Your task to perform on an android device: Open calendar and show me the third week of next month Image 0: 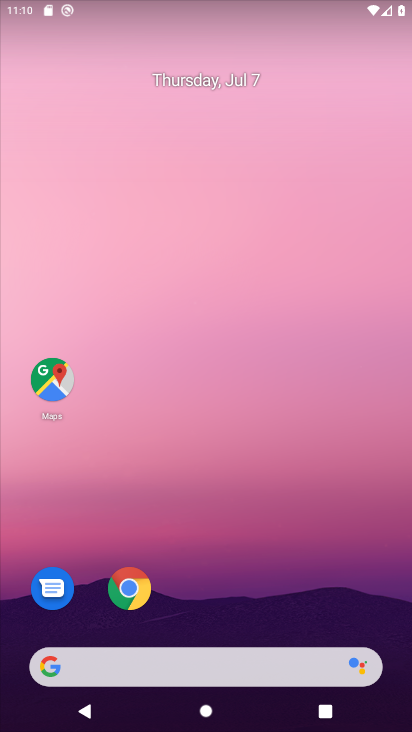
Step 0: press home button
Your task to perform on an android device: Open calendar and show me the third week of next month Image 1: 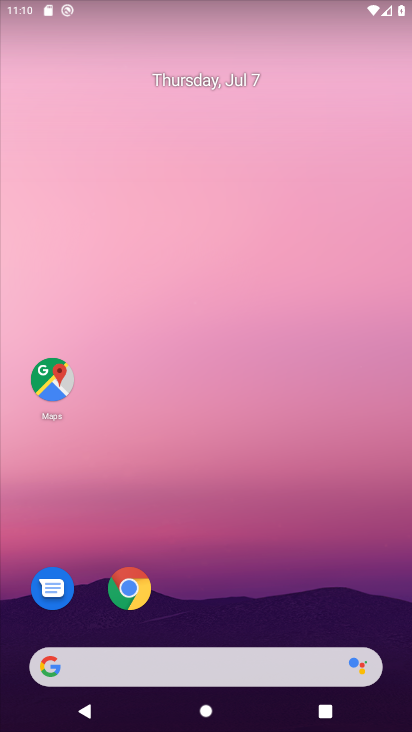
Step 1: drag from (134, 663) to (290, 112)
Your task to perform on an android device: Open calendar and show me the third week of next month Image 2: 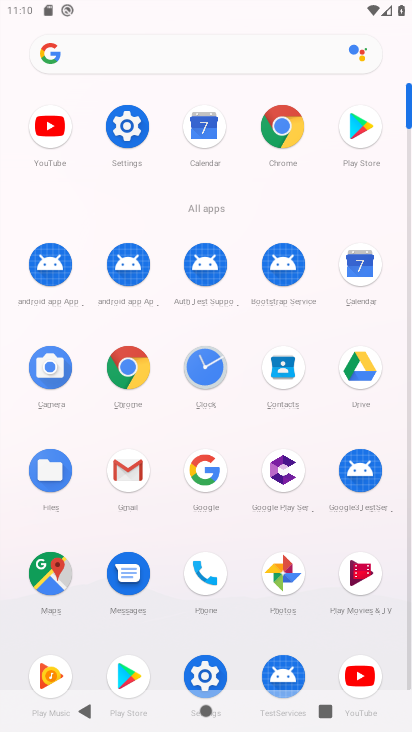
Step 2: click (359, 260)
Your task to perform on an android device: Open calendar and show me the third week of next month Image 3: 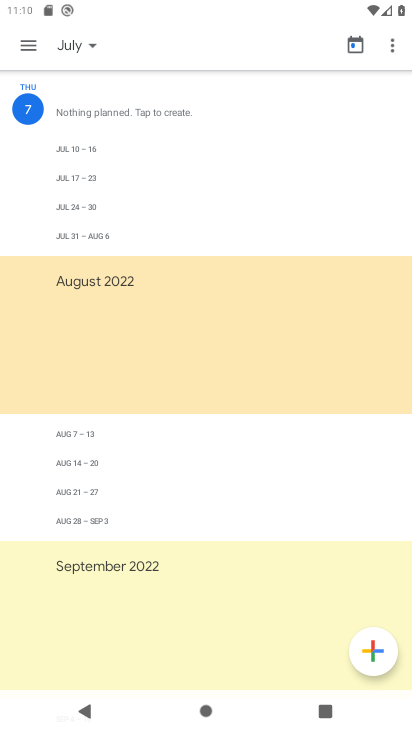
Step 3: click (66, 41)
Your task to perform on an android device: Open calendar and show me the third week of next month Image 4: 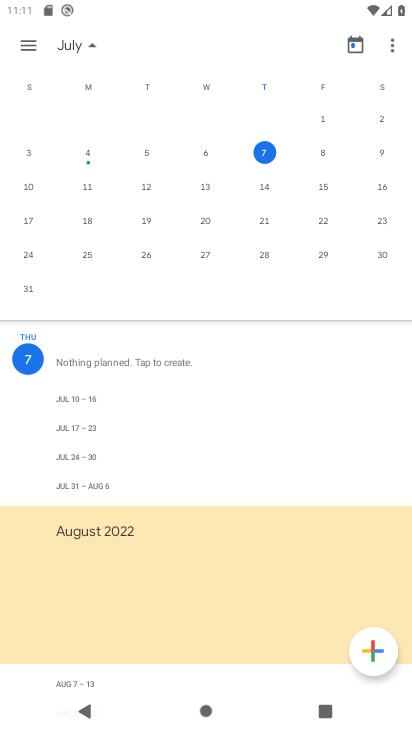
Step 4: drag from (354, 212) to (16, 163)
Your task to perform on an android device: Open calendar and show me the third week of next month Image 5: 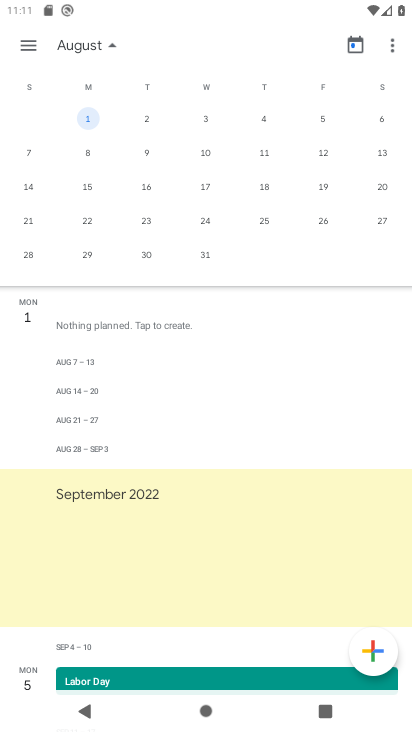
Step 5: click (33, 190)
Your task to perform on an android device: Open calendar and show me the third week of next month Image 6: 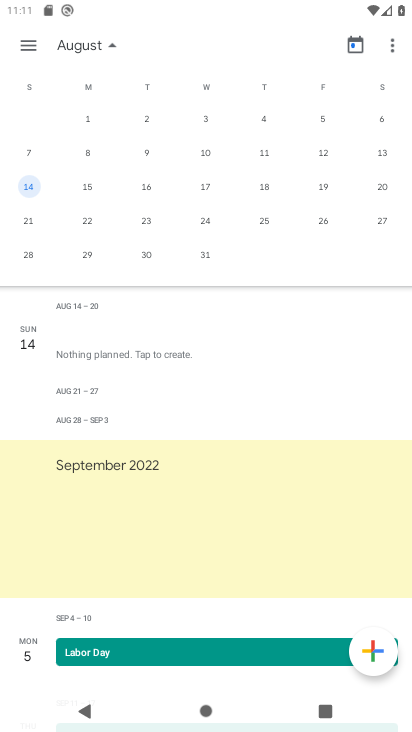
Step 6: click (32, 47)
Your task to perform on an android device: Open calendar and show me the third week of next month Image 7: 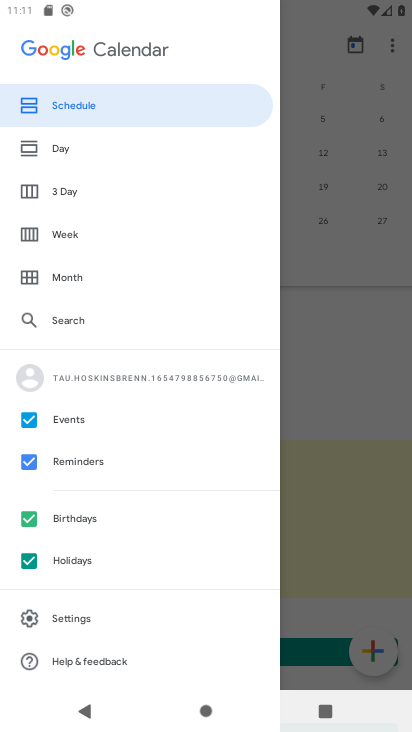
Step 7: click (73, 232)
Your task to perform on an android device: Open calendar and show me the third week of next month Image 8: 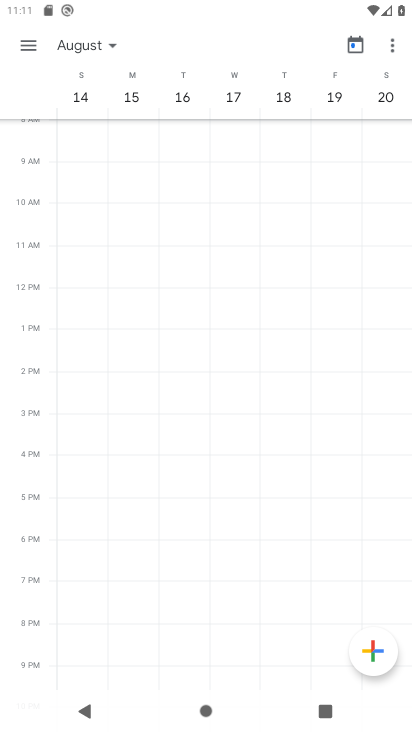
Step 8: task complete